Your task to perform on an android device: change text size in settings app Image 0: 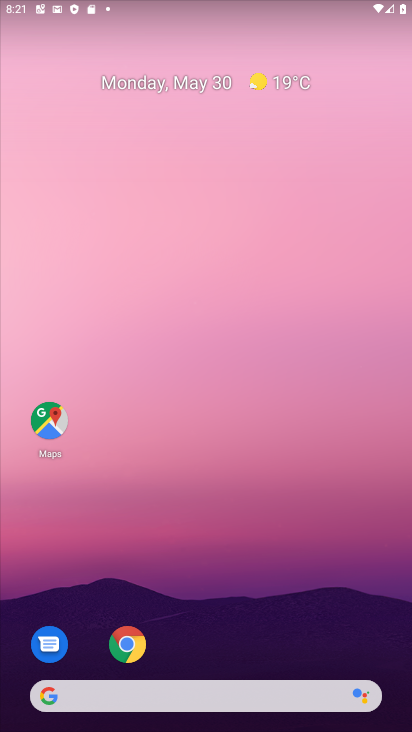
Step 0: drag from (190, 644) to (217, 98)
Your task to perform on an android device: change text size in settings app Image 1: 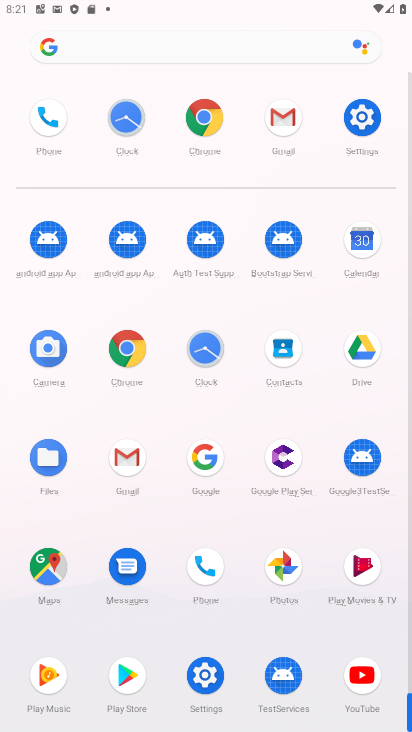
Step 1: click (368, 108)
Your task to perform on an android device: change text size in settings app Image 2: 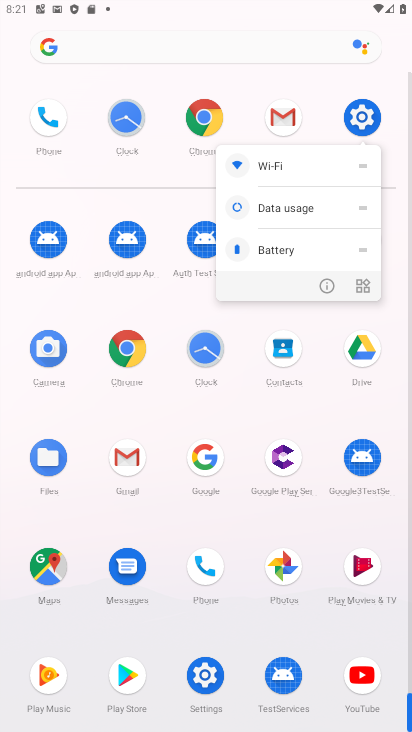
Step 2: click (328, 282)
Your task to perform on an android device: change text size in settings app Image 3: 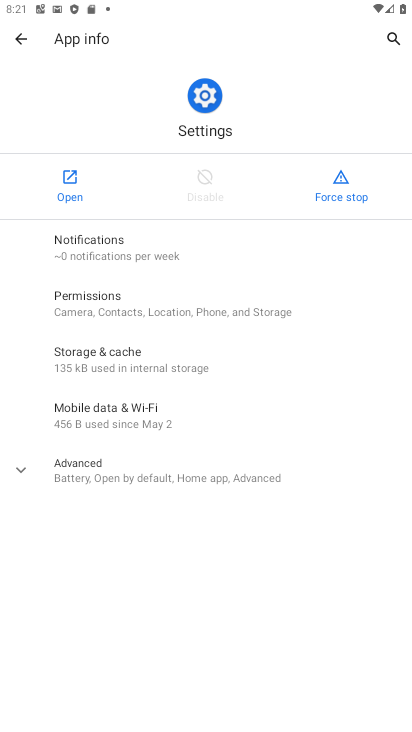
Step 3: click (75, 202)
Your task to perform on an android device: change text size in settings app Image 4: 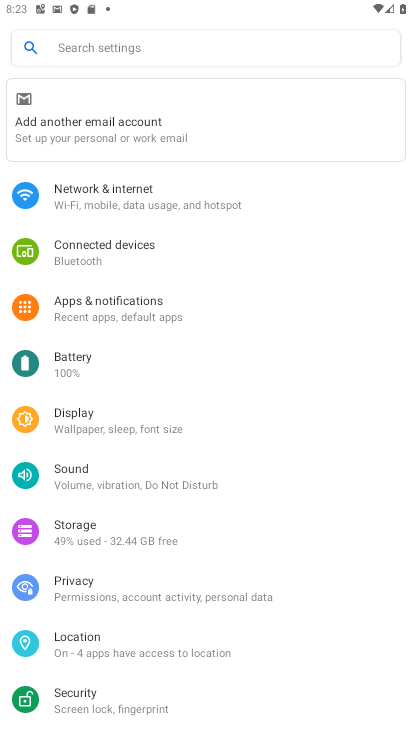
Step 4: click (108, 423)
Your task to perform on an android device: change text size in settings app Image 5: 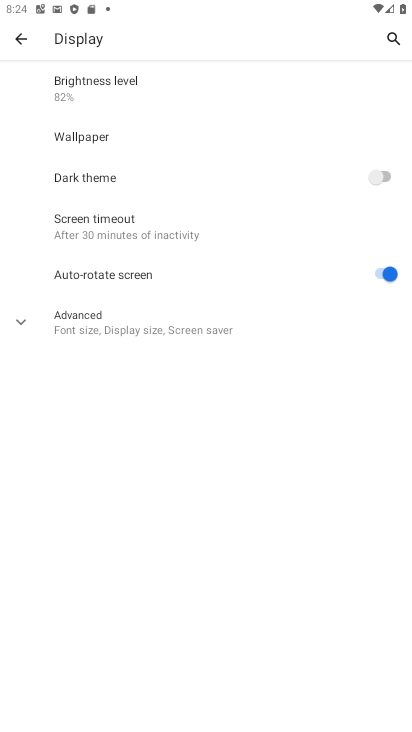
Step 5: click (115, 339)
Your task to perform on an android device: change text size in settings app Image 6: 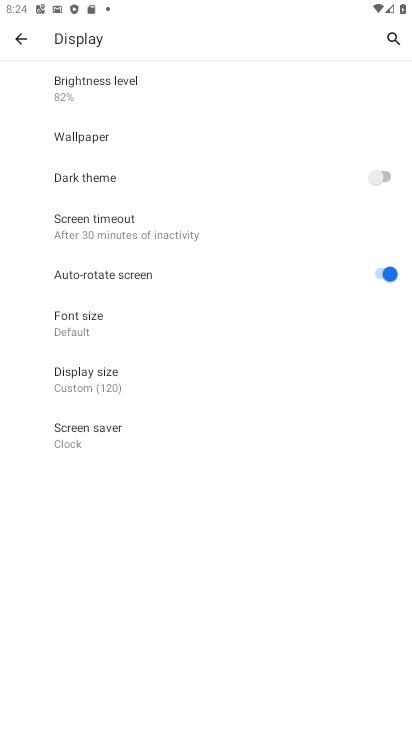
Step 6: click (90, 425)
Your task to perform on an android device: change text size in settings app Image 7: 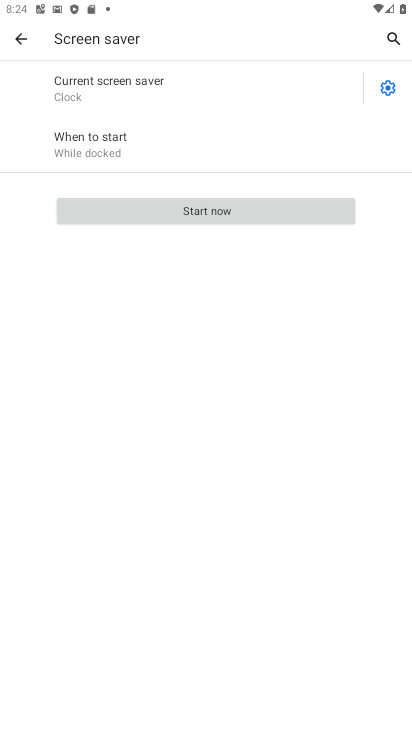
Step 7: click (124, 381)
Your task to perform on an android device: change text size in settings app Image 8: 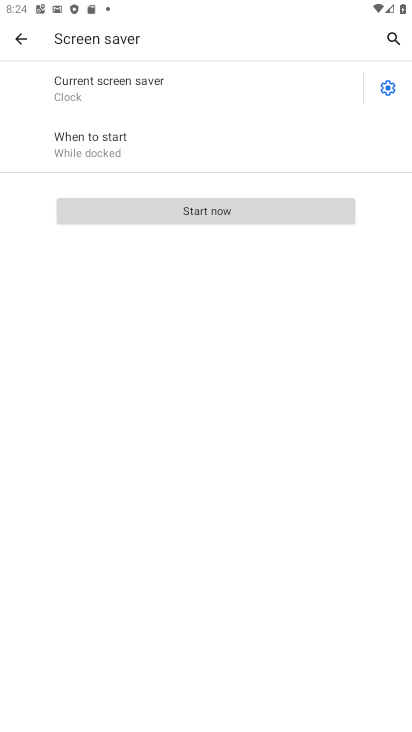
Step 8: click (21, 47)
Your task to perform on an android device: change text size in settings app Image 9: 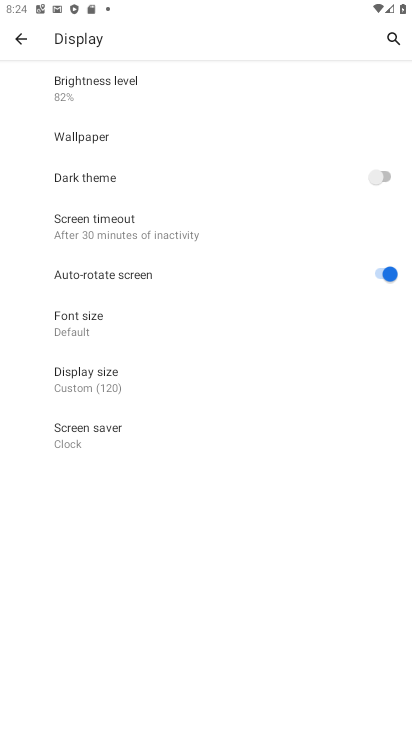
Step 9: click (108, 389)
Your task to perform on an android device: change text size in settings app Image 10: 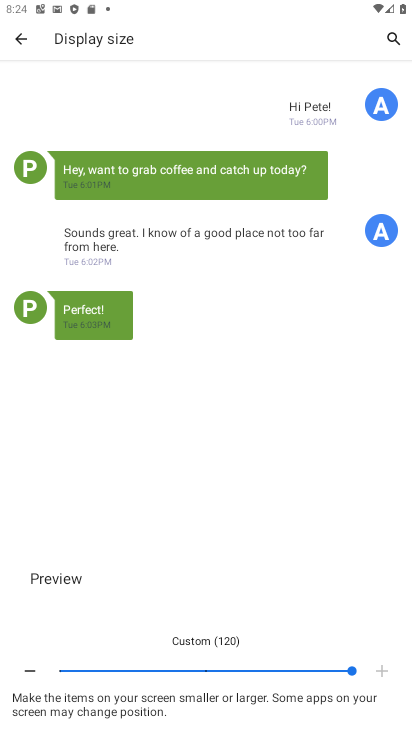
Step 10: click (127, 669)
Your task to perform on an android device: change text size in settings app Image 11: 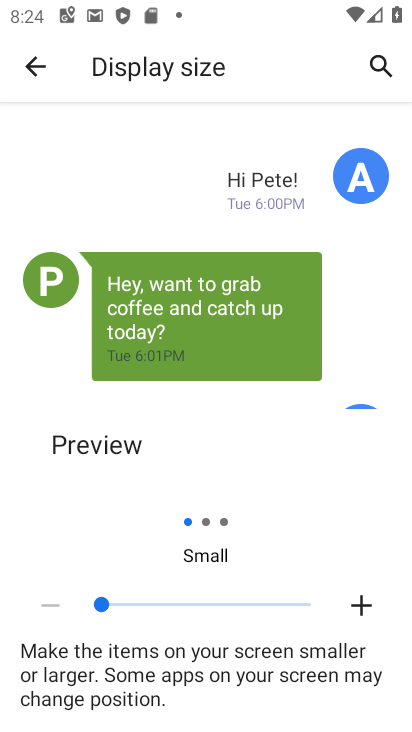
Step 11: task complete